Your task to perform on an android device: Go to internet settings Image 0: 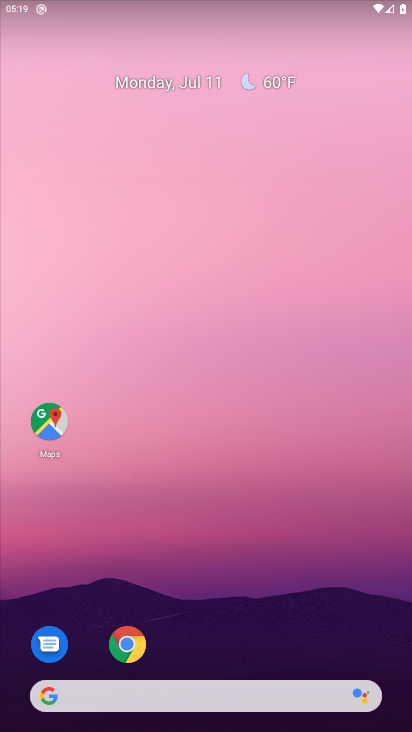
Step 0: drag from (209, 600) to (229, 289)
Your task to perform on an android device: Go to internet settings Image 1: 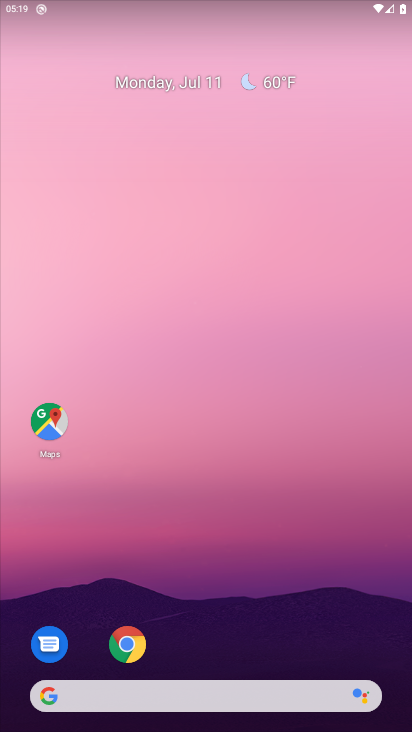
Step 1: drag from (264, 664) to (256, 195)
Your task to perform on an android device: Go to internet settings Image 2: 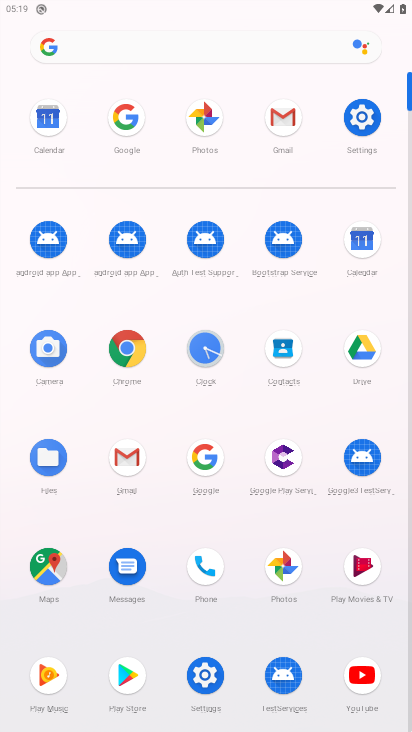
Step 2: click (351, 116)
Your task to perform on an android device: Go to internet settings Image 3: 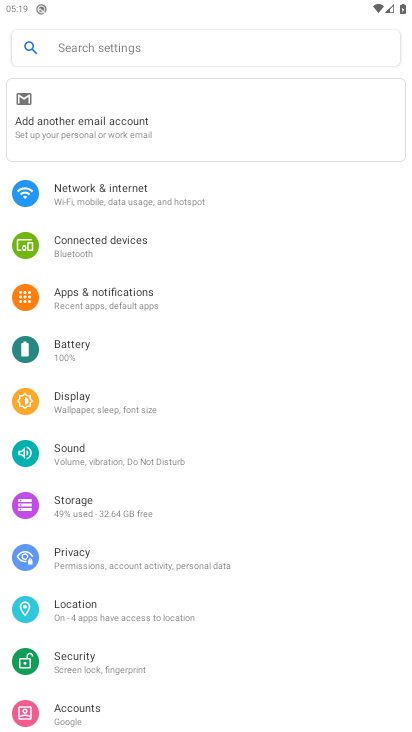
Step 3: click (89, 203)
Your task to perform on an android device: Go to internet settings Image 4: 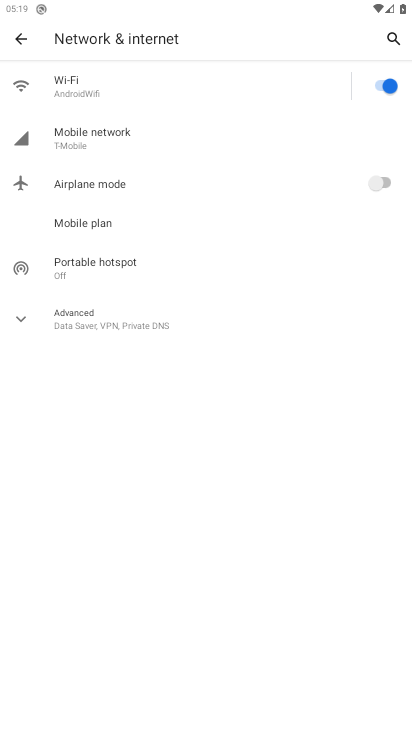
Step 4: click (90, 323)
Your task to perform on an android device: Go to internet settings Image 5: 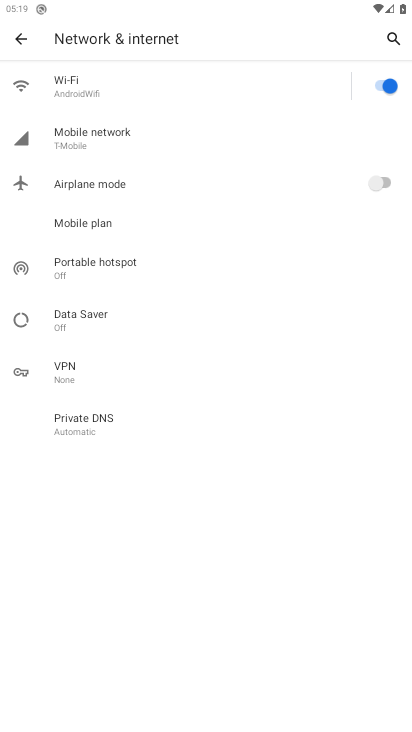
Step 5: task complete